Your task to perform on an android device: Turn off the flashlight Image 0: 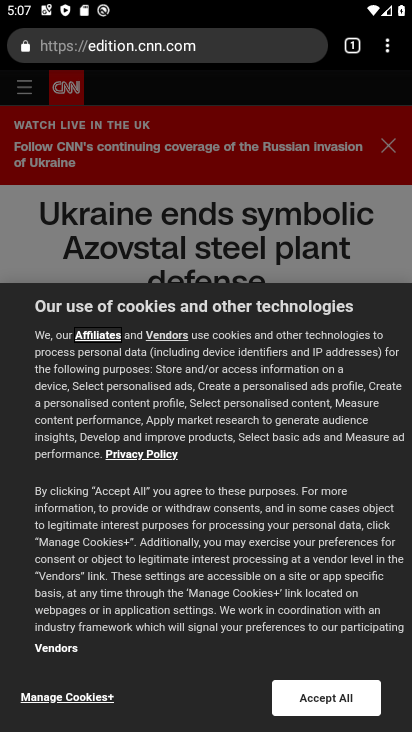
Step 0: press home button
Your task to perform on an android device: Turn off the flashlight Image 1: 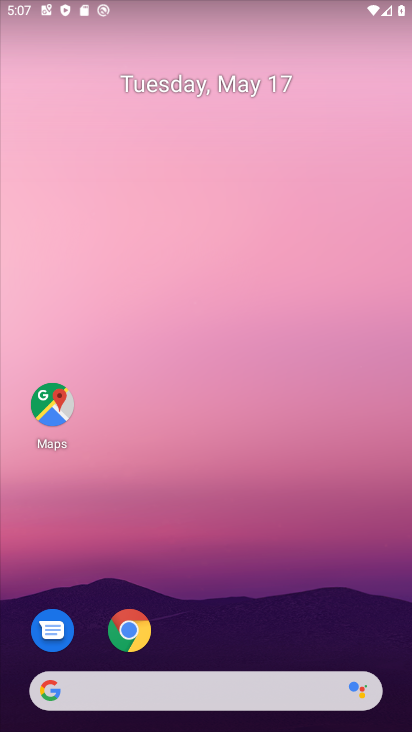
Step 1: task complete